Your task to perform on an android device: turn notification dots off Image 0: 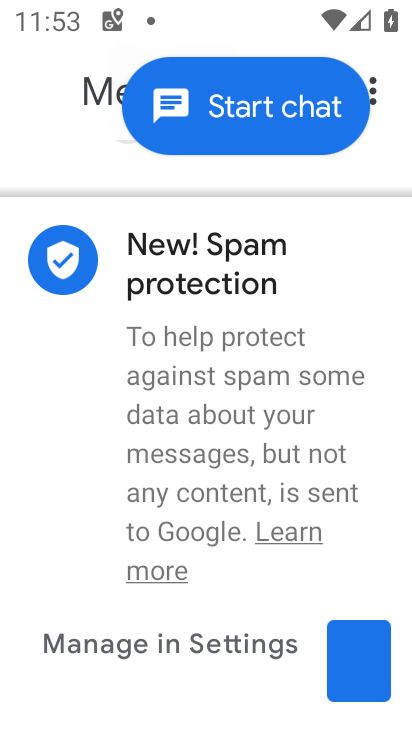
Step 0: press home button
Your task to perform on an android device: turn notification dots off Image 1: 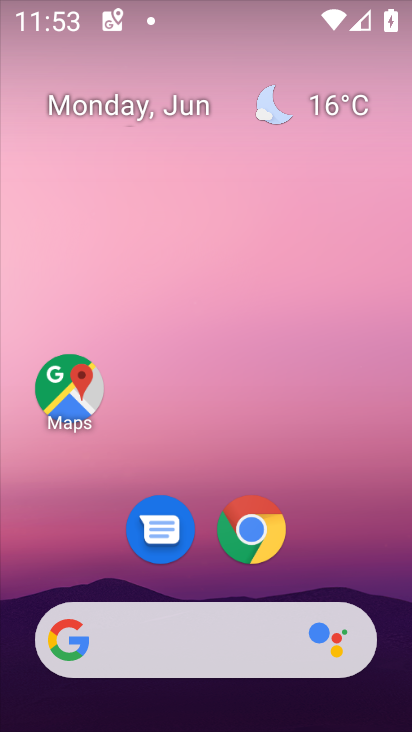
Step 1: drag from (81, 608) to (162, 121)
Your task to perform on an android device: turn notification dots off Image 2: 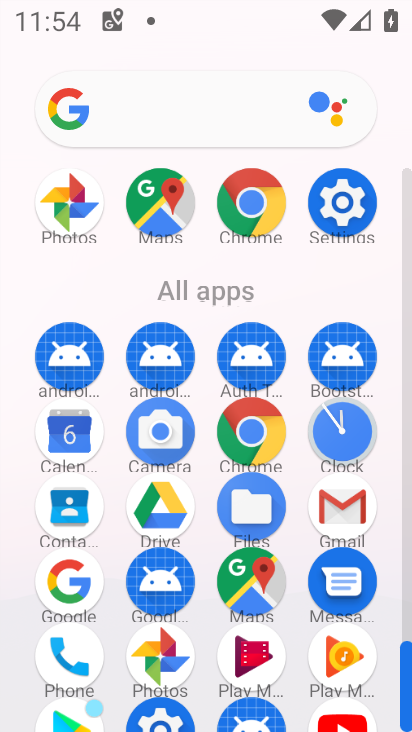
Step 2: drag from (140, 574) to (221, 208)
Your task to perform on an android device: turn notification dots off Image 3: 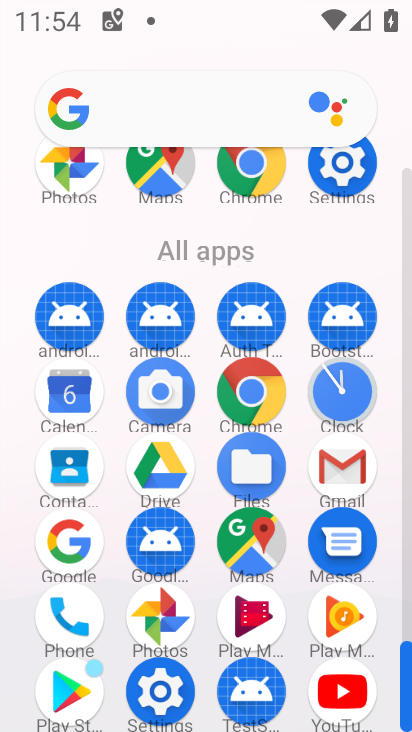
Step 3: click (154, 708)
Your task to perform on an android device: turn notification dots off Image 4: 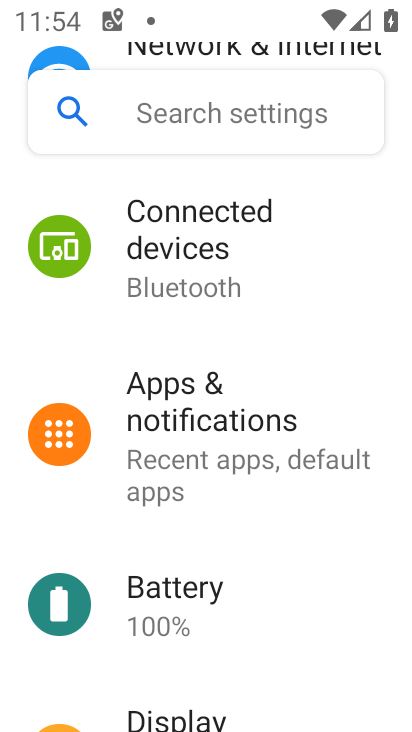
Step 4: click (201, 465)
Your task to perform on an android device: turn notification dots off Image 5: 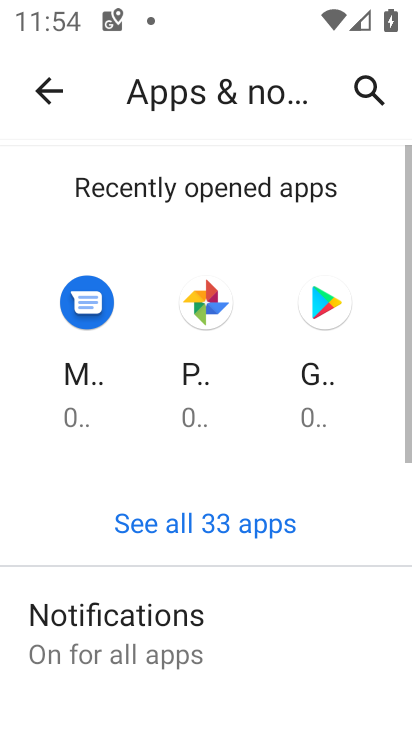
Step 5: drag from (193, 613) to (261, 284)
Your task to perform on an android device: turn notification dots off Image 6: 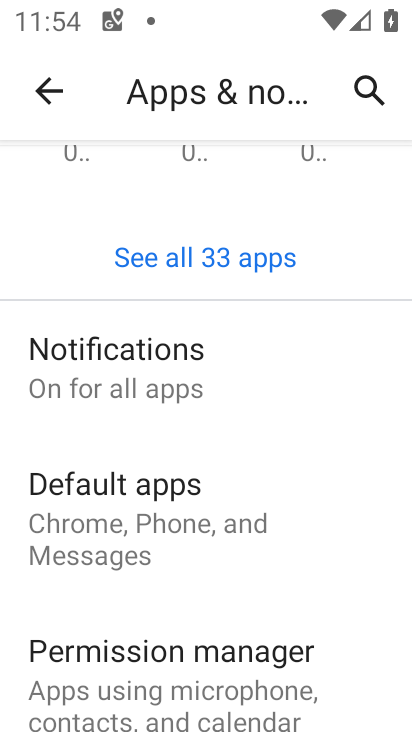
Step 6: click (204, 405)
Your task to perform on an android device: turn notification dots off Image 7: 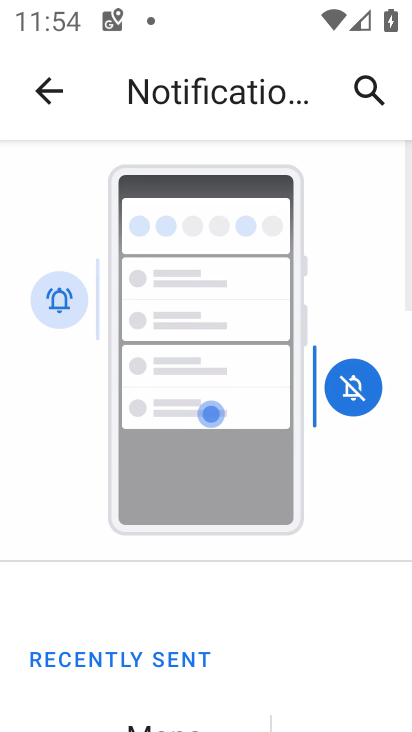
Step 7: drag from (149, 686) to (279, 156)
Your task to perform on an android device: turn notification dots off Image 8: 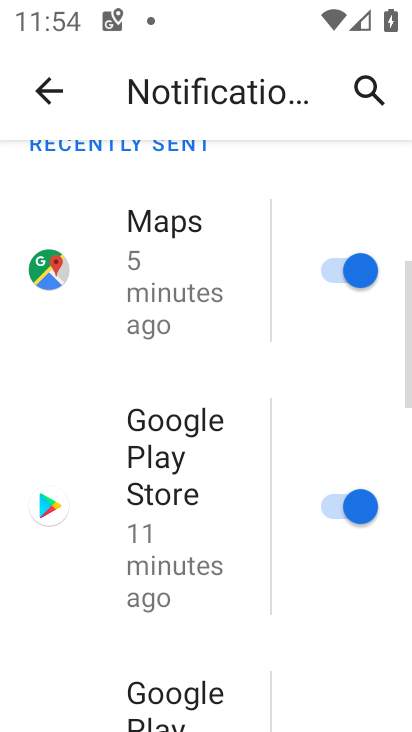
Step 8: drag from (181, 661) to (310, 202)
Your task to perform on an android device: turn notification dots off Image 9: 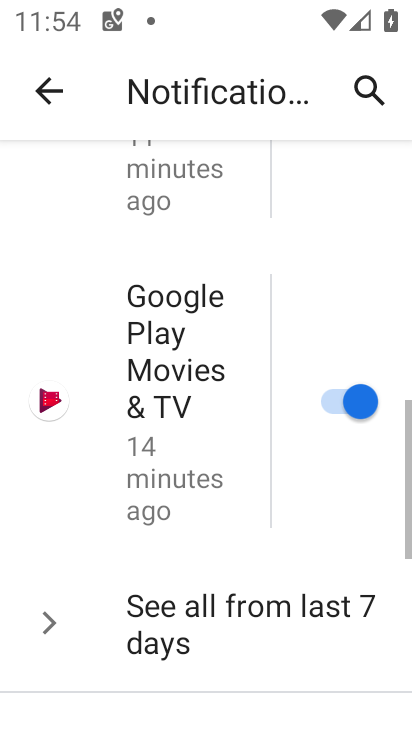
Step 9: drag from (226, 694) to (336, 186)
Your task to perform on an android device: turn notification dots off Image 10: 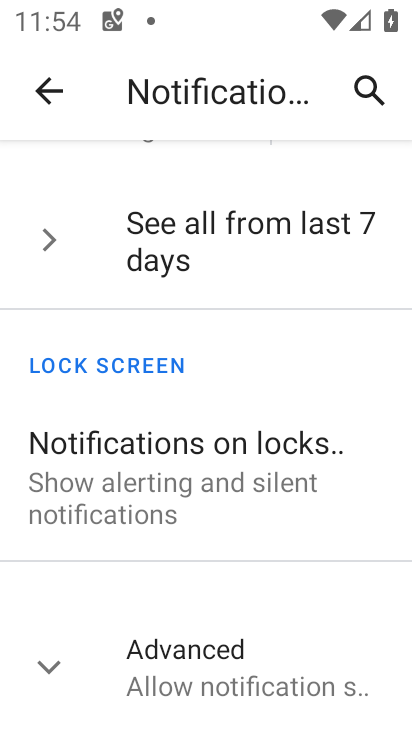
Step 10: click (249, 688)
Your task to perform on an android device: turn notification dots off Image 11: 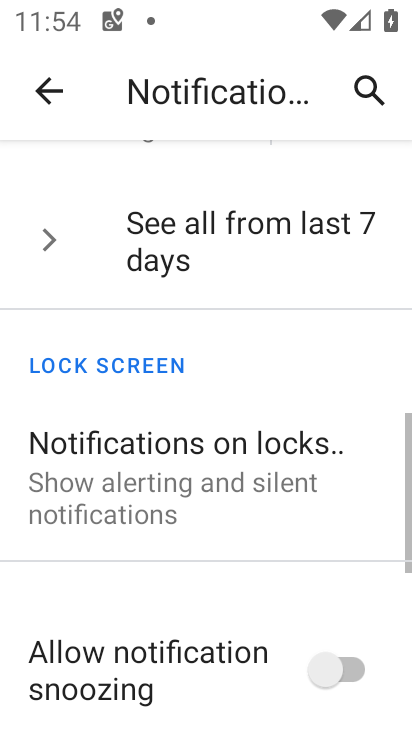
Step 11: drag from (139, 697) to (288, 174)
Your task to perform on an android device: turn notification dots off Image 12: 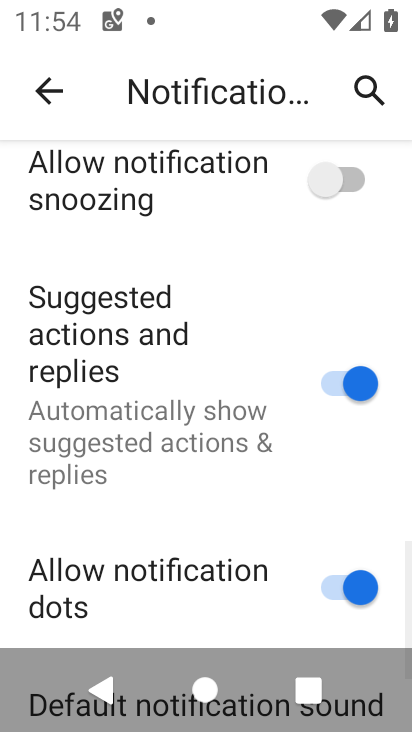
Step 12: drag from (189, 572) to (311, 211)
Your task to perform on an android device: turn notification dots off Image 13: 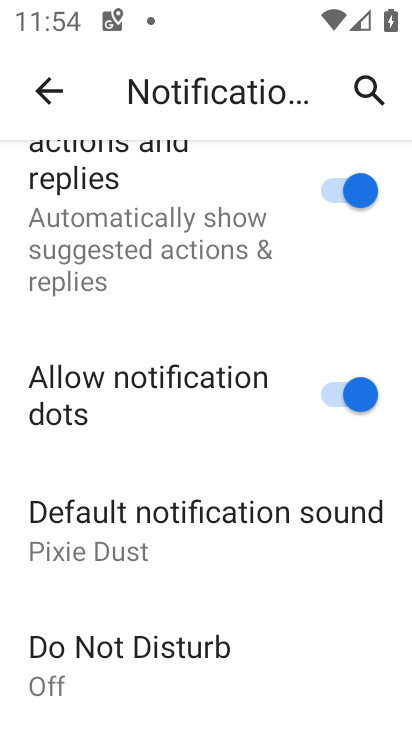
Step 13: click (329, 399)
Your task to perform on an android device: turn notification dots off Image 14: 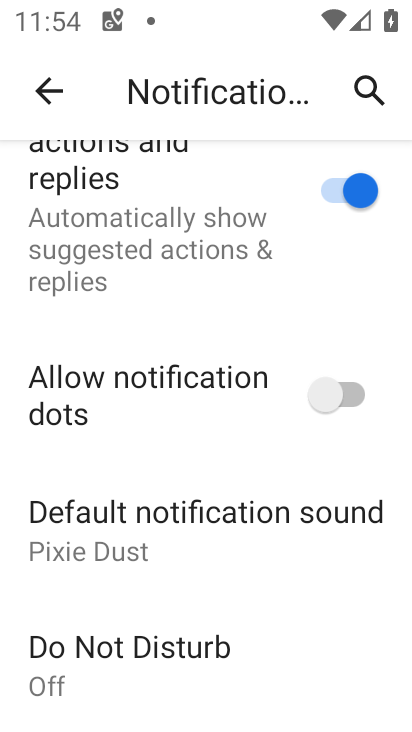
Step 14: task complete